Your task to perform on an android device: Open Google Chrome and open the bookmarks view Image 0: 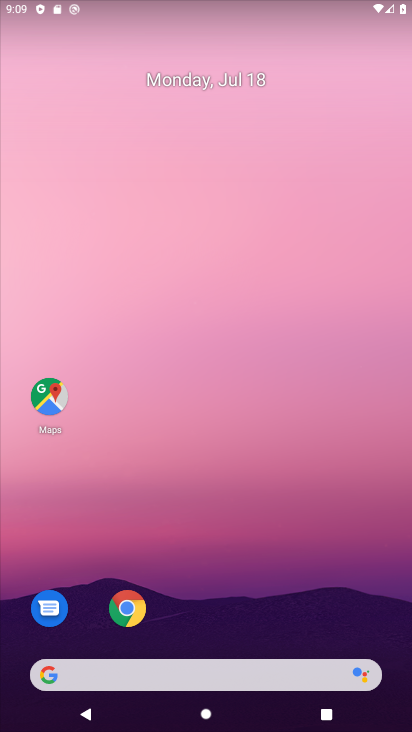
Step 0: click (133, 605)
Your task to perform on an android device: Open Google Chrome and open the bookmarks view Image 1: 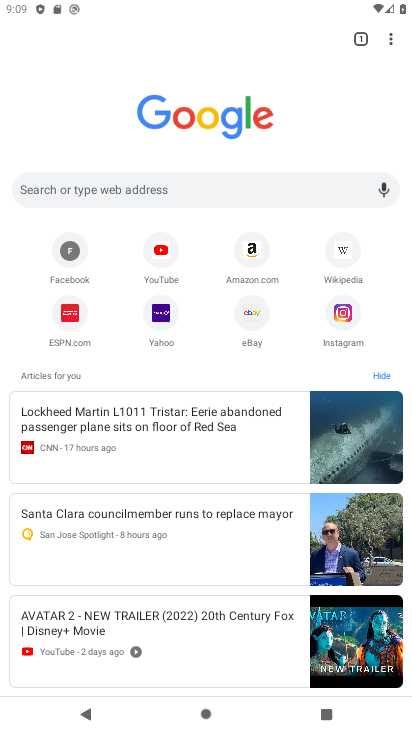
Step 1: click (391, 42)
Your task to perform on an android device: Open Google Chrome and open the bookmarks view Image 2: 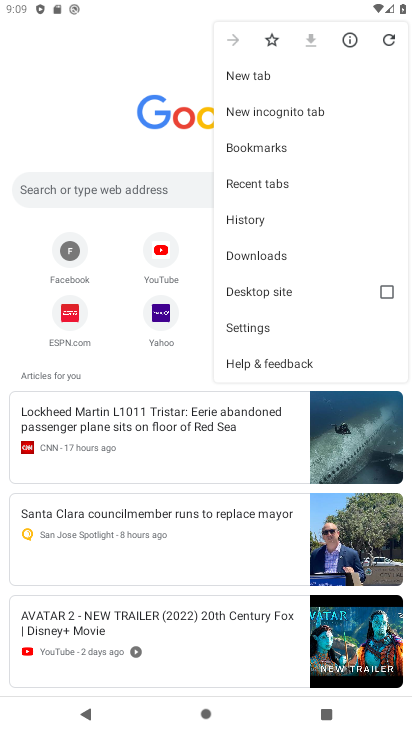
Step 2: click (266, 153)
Your task to perform on an android device: Open Google Chrome and open the bookmarks view Image 3: 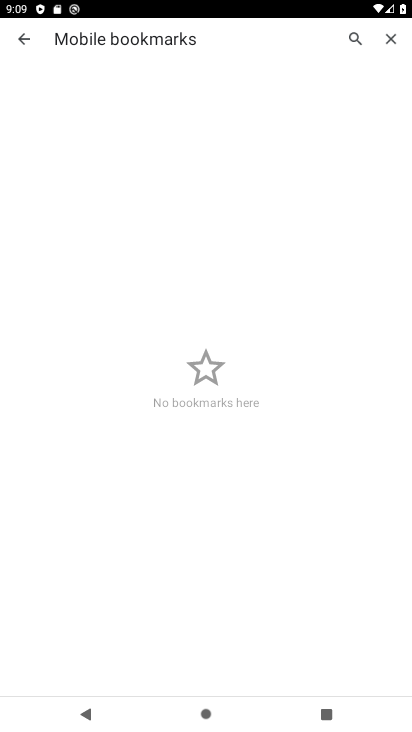
Step 3: task complete